Your task to perform on an android device: change the clock display to digital Image 0: 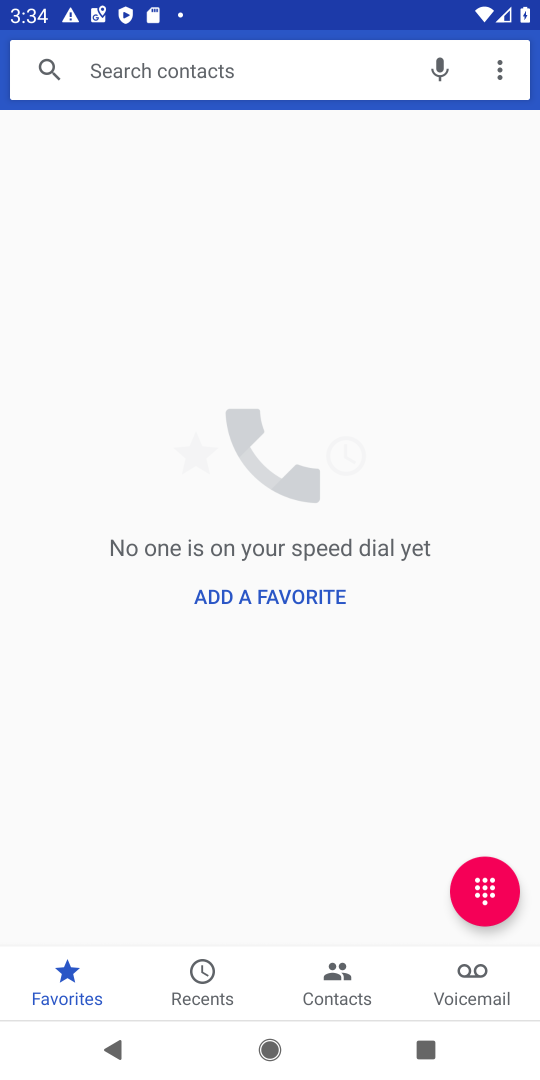
Step 0: press back button
Your task to perform on an android device: change the clock display to digital Image 1: 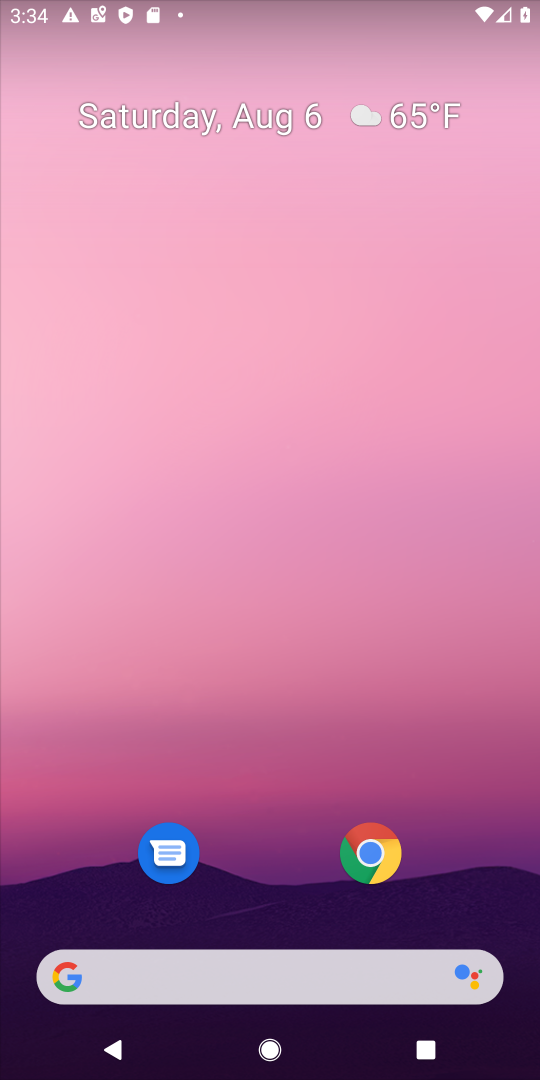
Step 1: drag from (212, 927) to (390, 109)
Your task to perform on an android device: change the clock display to digital Image 2: 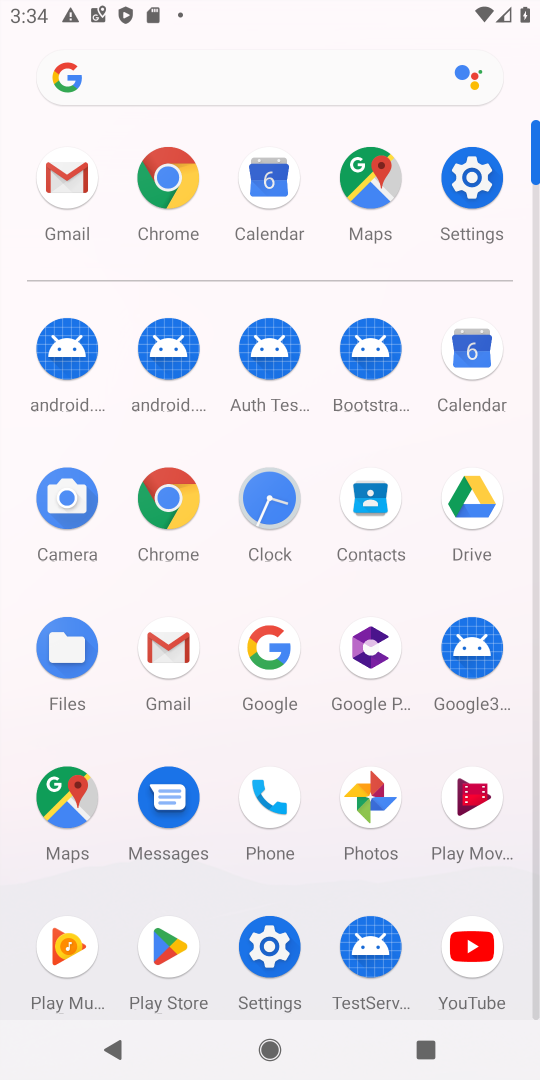
Step 2: click (274, 487)
Your task to perform on an android device: change the clock display to digital Image 3: 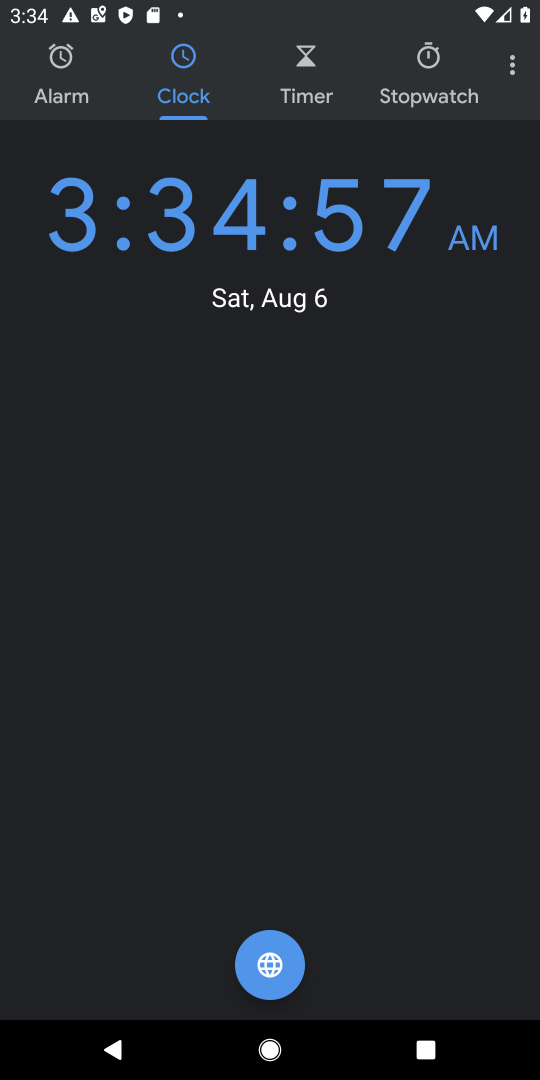
Step 3: click (507, 51)
Your task to perform on an android device: change the clock display to digital Image 4: 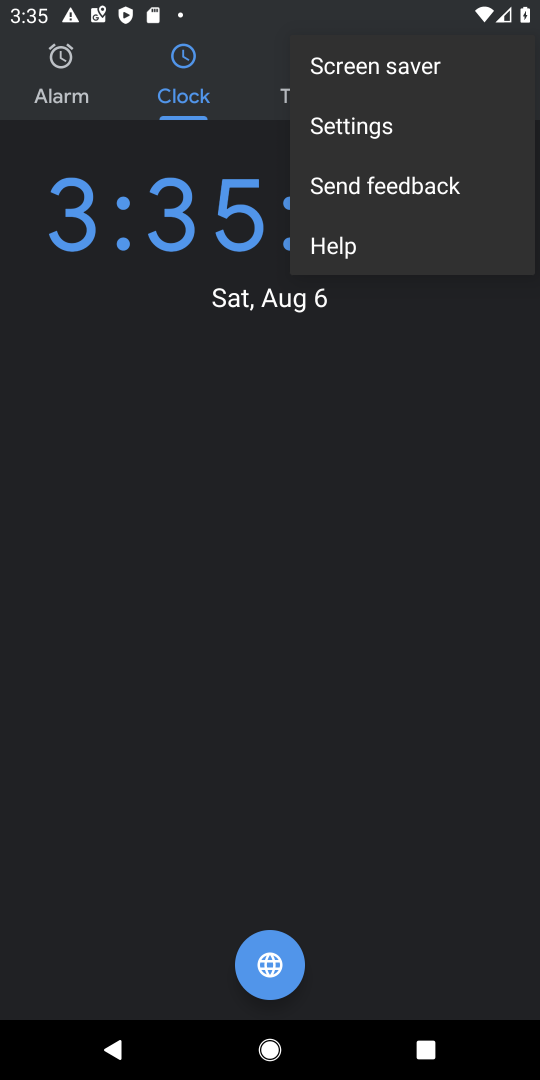
Step 4: click (421, 122)
Your task to perform on an android device: change the clock display to digital Image 5: 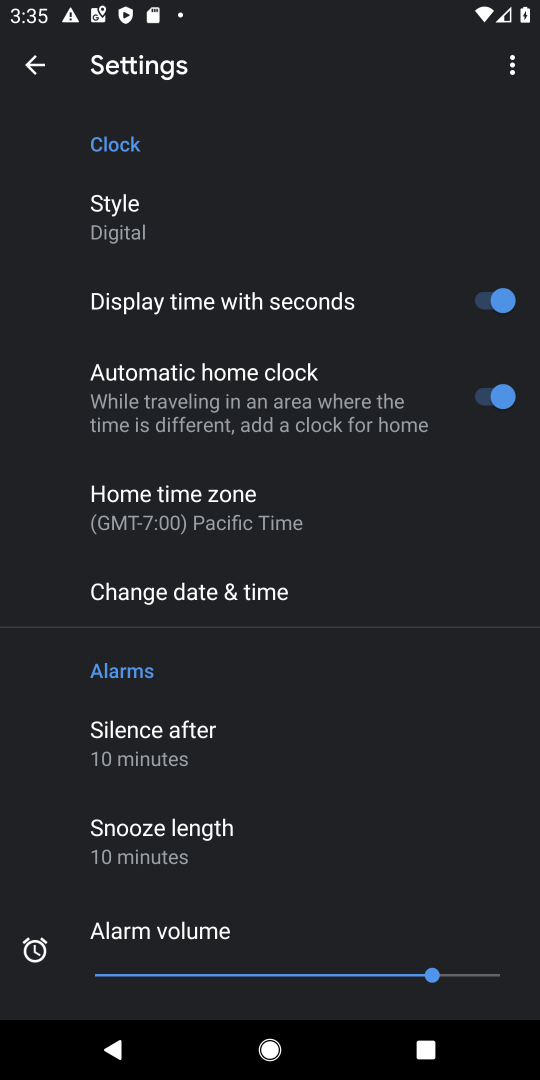
Step 5: click (196, 214)
Your task to perform on an android device: change the clock display to digital Image 6: 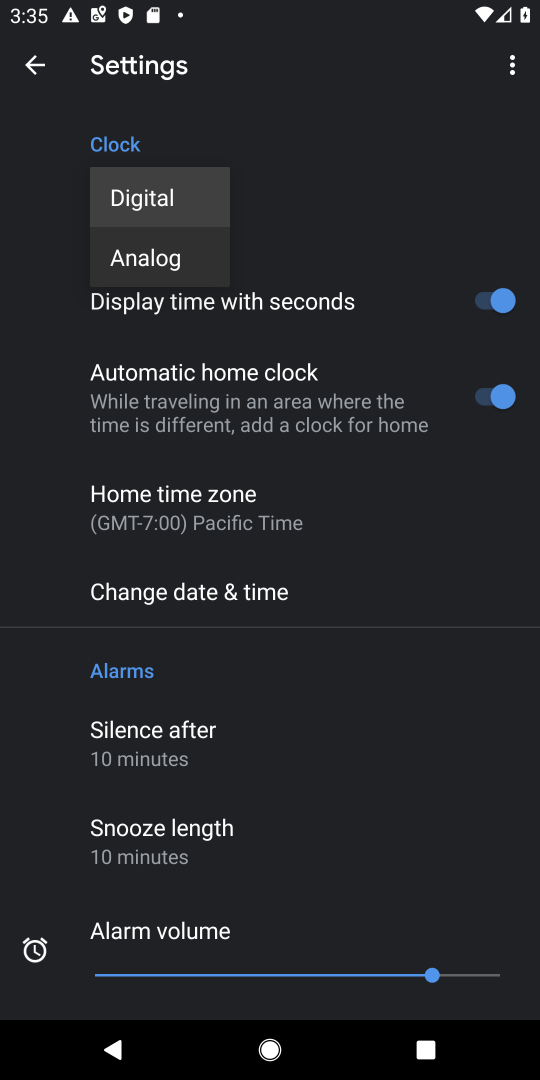
Step 6: click (177, 213)
Your task to perform on an android device: change the clock display to digital Image 7: 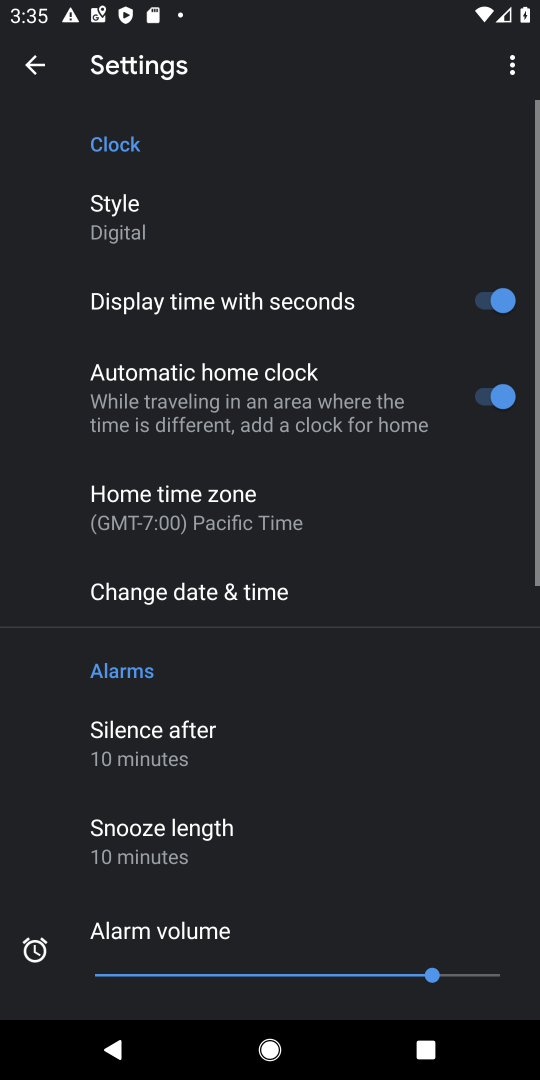
Step 7: task complete